Your task to perform on an android device: Search for vegetarian restaurants on Maps Image 0: 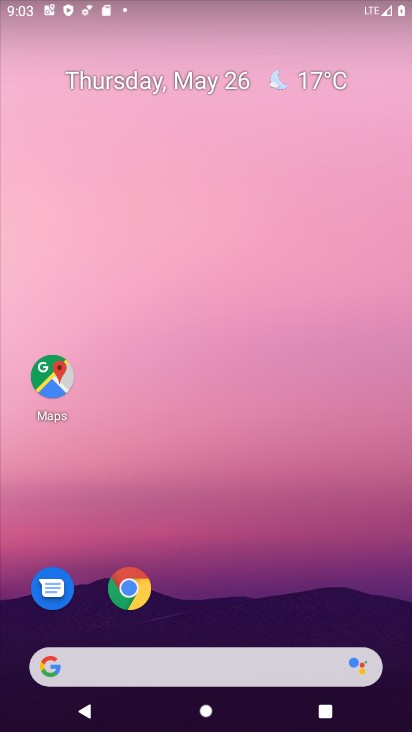
Step 0: click (50, 371)
Your task to perform on an android device: Search for vegetarian restaurants on Maps Image 1: 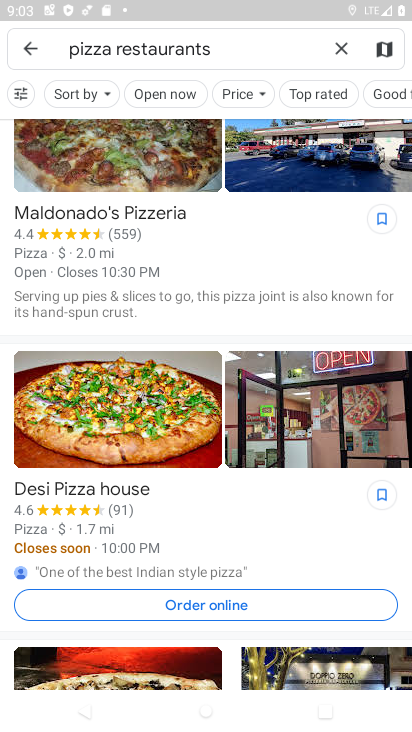
Step 1: click (330, 46)
Your task to perform on an android device: Search for vegetarian restaurants on Maps Image 2: 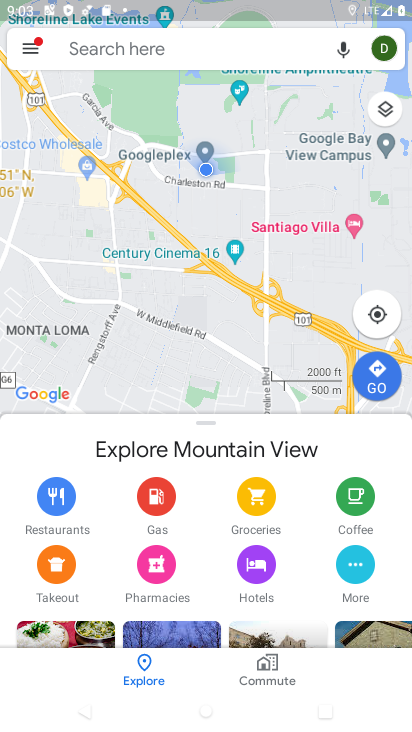
Step 2: click (127, 50)
Your task to perform on an android device: Search for vegetarian restaurants on Maps Image 3: 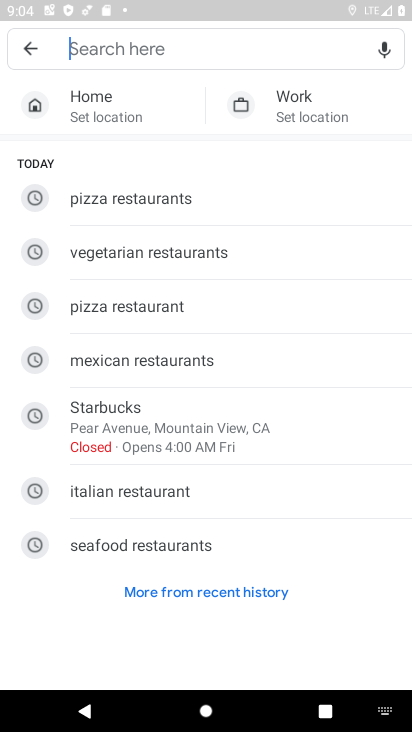
Step 3: type "vegetarian restaurants"
Your task to perform on an android device: Search for vegetarian restaurants on Maps Image 4: 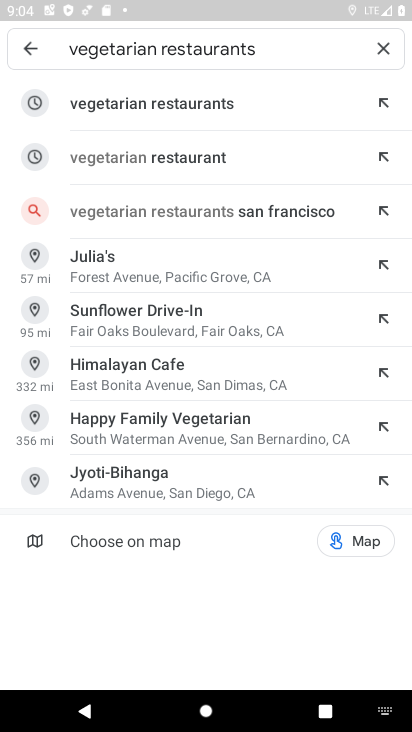
Step 4: click (115, 96)
Your task to perform on an android device: Search for vegetarian restaurants on Maps Image 5: 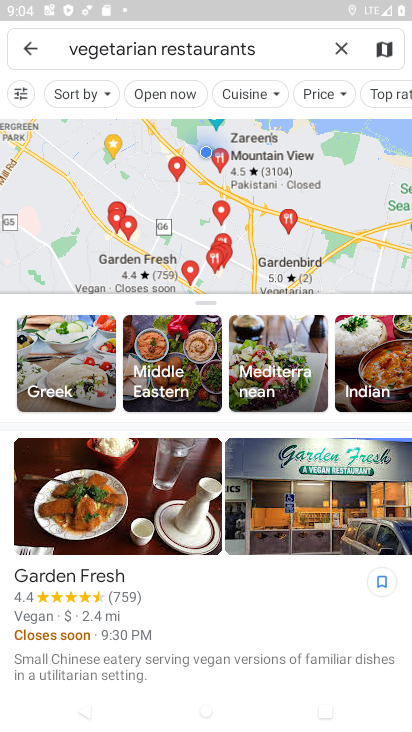
Step 5: task complete